Your task to perform on an android device: all mails in gmail Image 0: 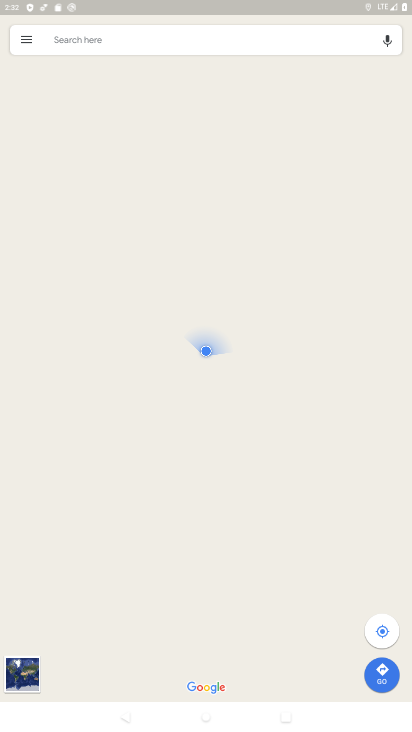
Step 0: press home button
Your task to perform on an android device: all mails in gmail Image 1: 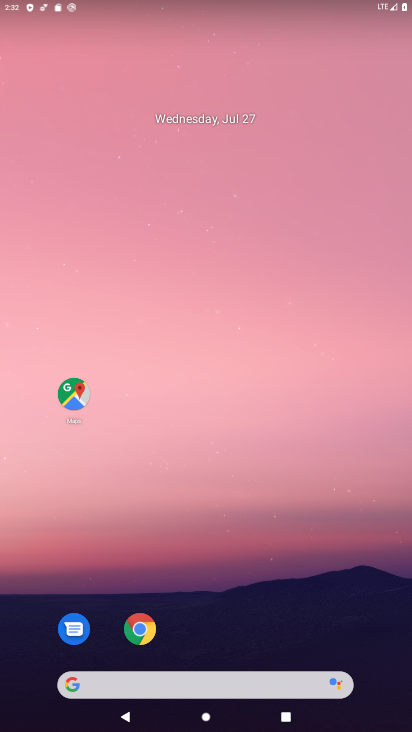
Step 1: drag from (204, 642) to (216, 158)
Your task to perform on an android device: all mails in gmail Image 2: 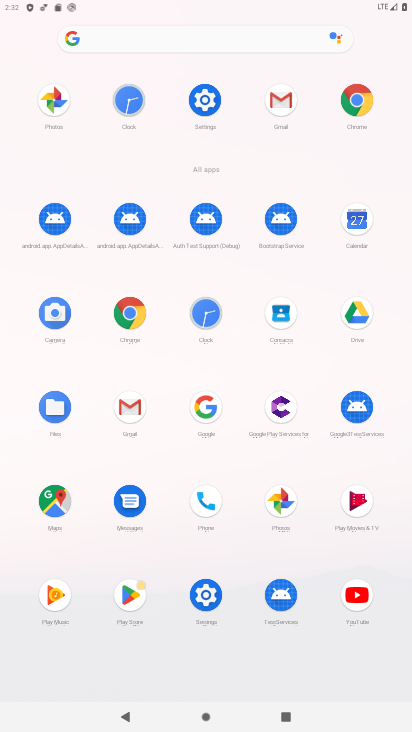
Step 2: click (283, 101)
Your task to perform on an android device: all mails in gmail Image 3: 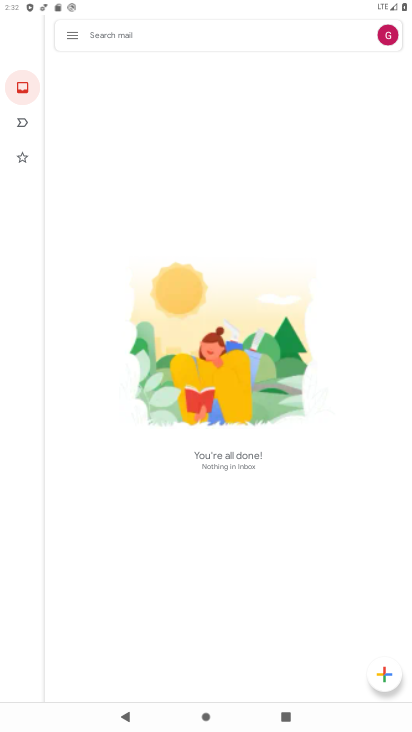
Step 3: click (64, 35)
Your task to perform on an android device: all mails in gmail Image 4: 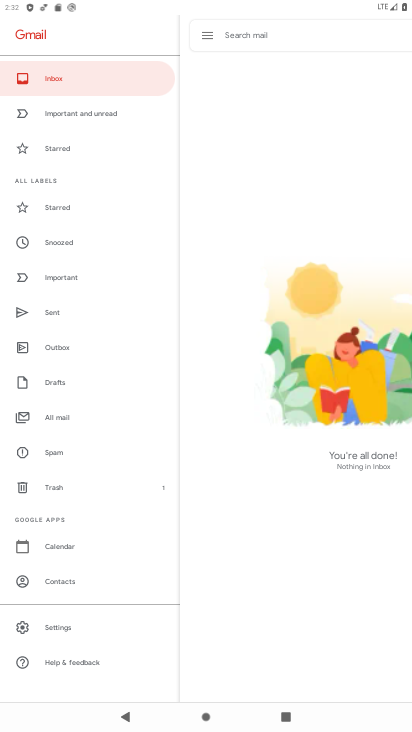
Step 4: click (72, 425)
Your task to perform on an android device: all mails in gmail Image 5: 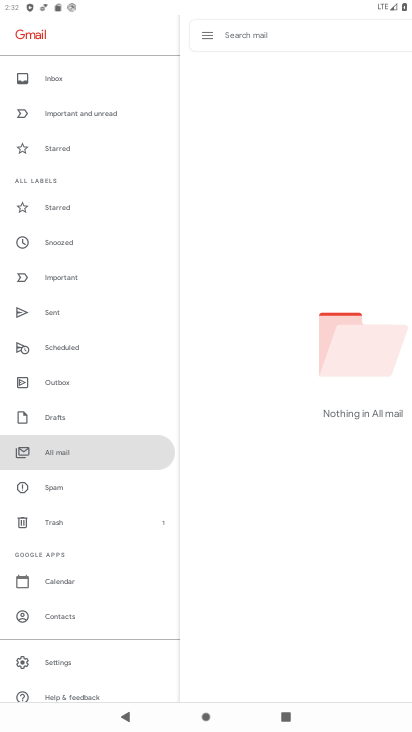
Step 5: task complete